Your task to perform on an android device: toggle priority inbox in the gmail app Image 0: 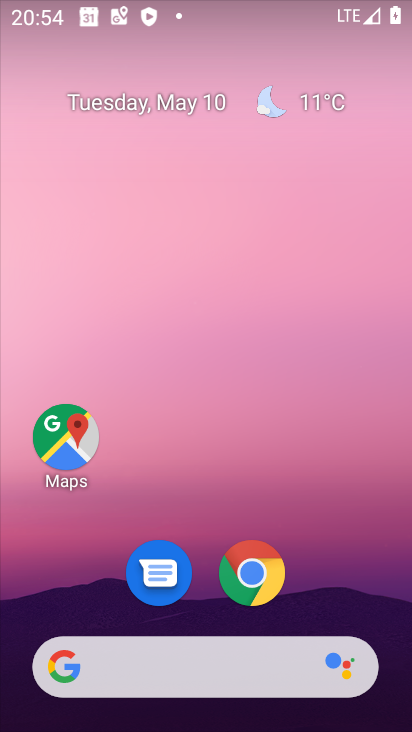
Step 0: drag from (357, 610) to (346, 12)
Your task to perform on an android device: toggle priority inbox in the gmail app Image 1: 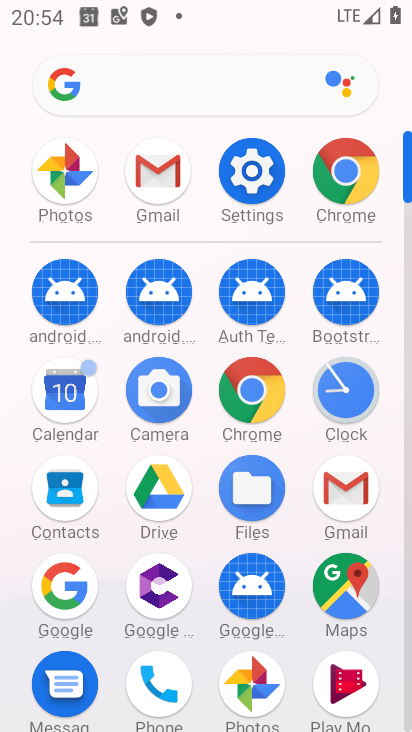
Step 1: click (146, 165)
Your task to perform on an android device: toggle priority inbox in the gmail app Image 2: 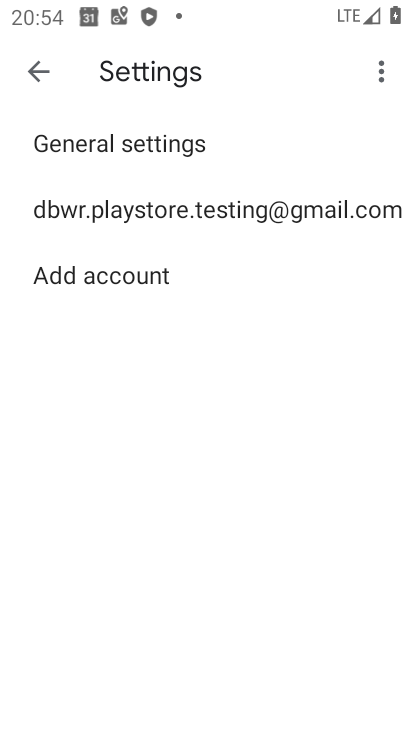
Step 2: click (129, 221)
Your task to perform on an android device: toggle priority inbox in the gmail app Image 3: 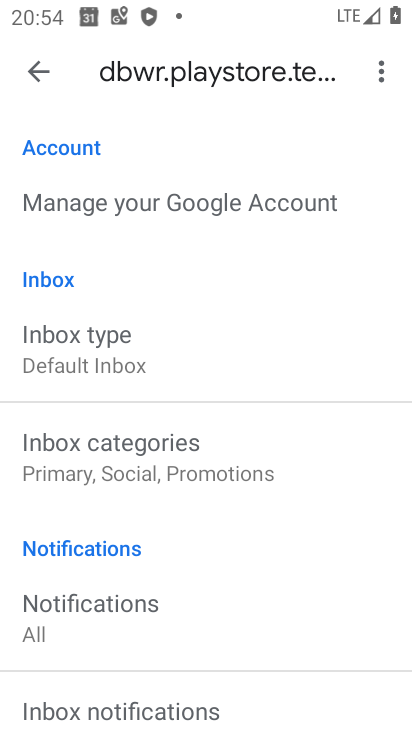
Step 3: click (77, 363)
Your task to perform on an android device: toggle priority inbox in the gmail app Image 4: 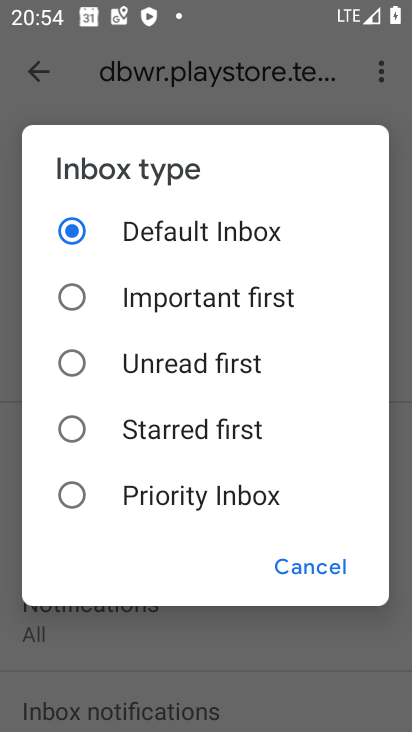
Step 4: click (61, 501)
Your task to perform on an android device: toggle priority inbox in the gmail app Image 5: 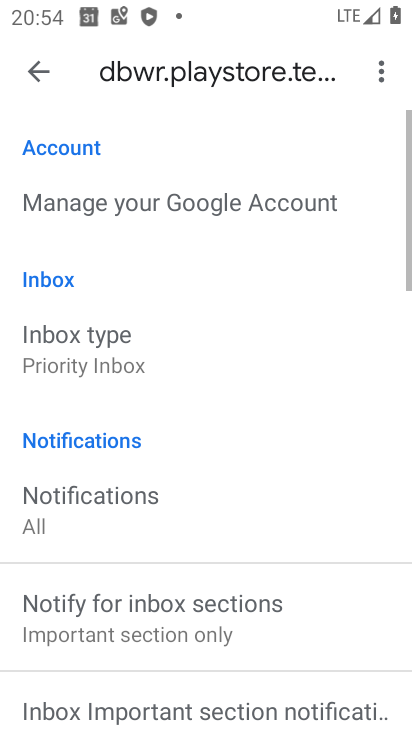
Step 5: task complete